Your task to perform on an android device: What's on my calendar today? Image 0: 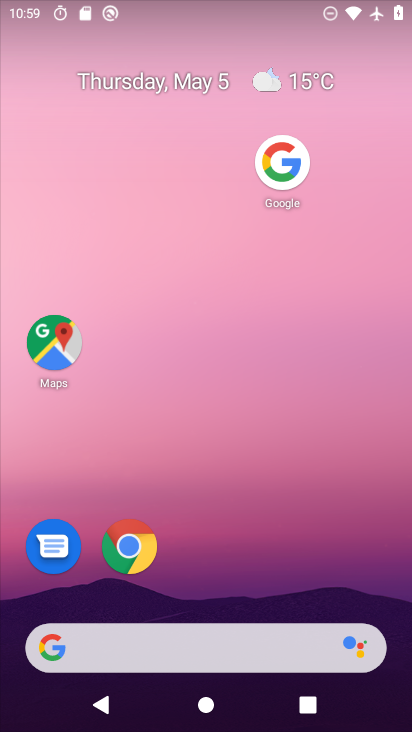
Step 0: drag from (177, 654) to (408, 12)
Your task to perform on an android device: What's on my calendar today? Image 1: 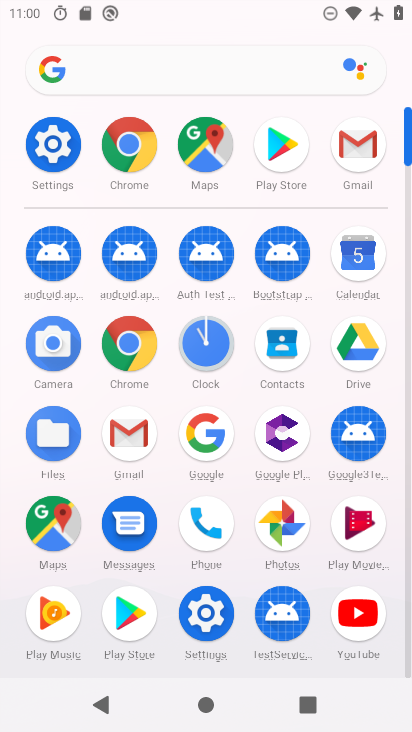
Step 1: click (360, 260)
Your task to perform on an android device: What's on my calendar today? Image 2: 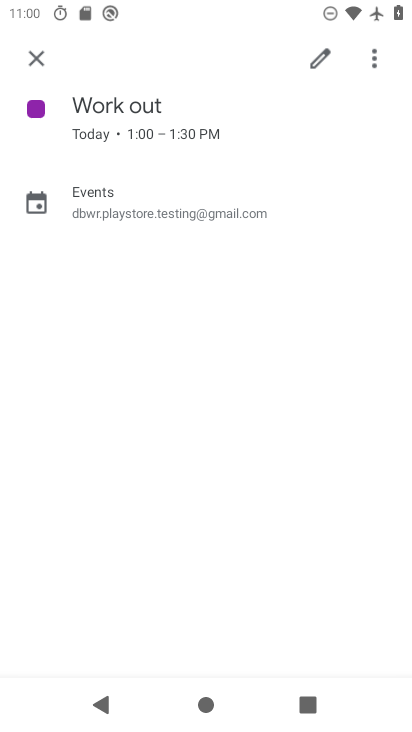
Step 2: click (34, 52)
Your task to perform on an android device: What's on my calendar today? Image 3: 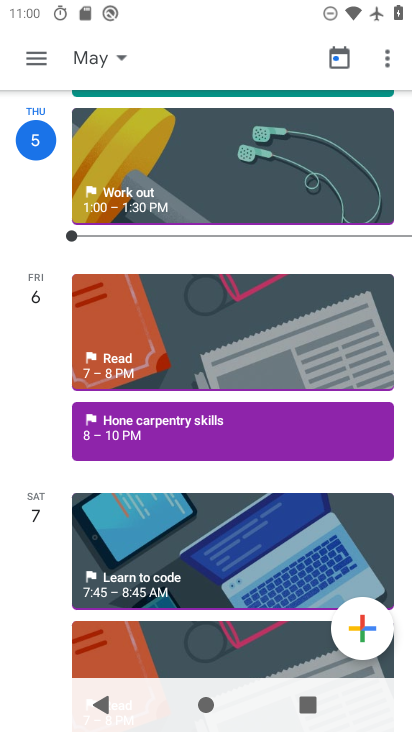
Step 3: click (192, 164)
Your task to perform on an android device: What's on my calendar today? Image 4: 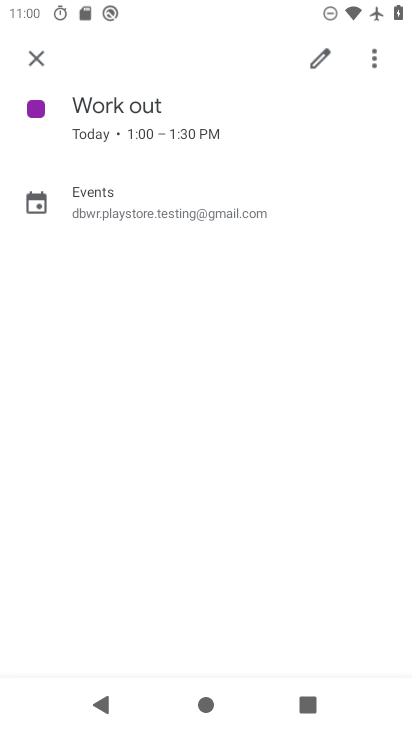
Step 4: task complete